Your task to perform on an android device: toggle translation in the chrome app Image 0: 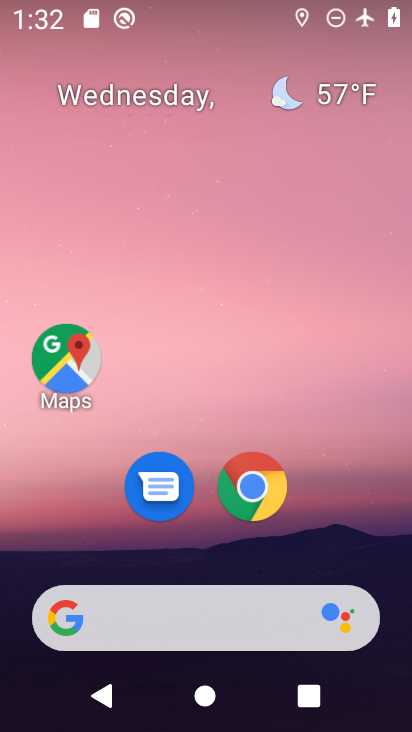
Step 0: drag from (367, 552) to (379, 203)
Your task to perform on an android device: toggle translation in the chrome app Image 1: 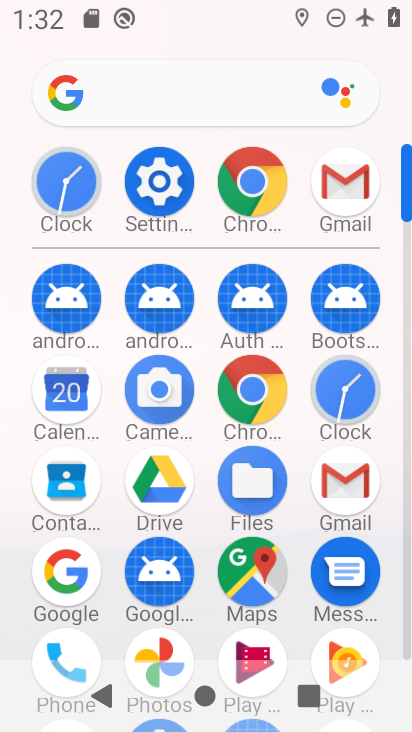
Step 1: click (280, 394)
Your task to perform on an android device: toggle translation in the chrome app Image 2: 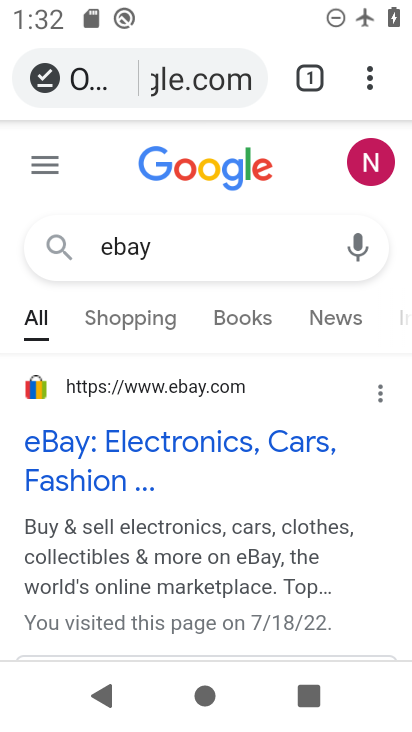
Step 2: click (371, 78)
Your task to perform on an android device: toggle translation in the chrome app Image 3: 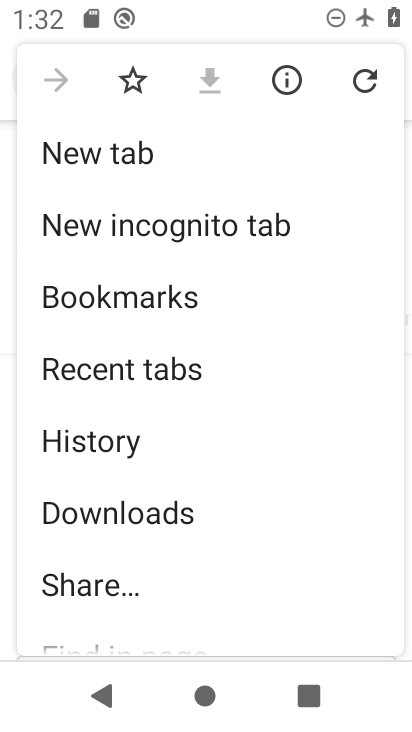
Step 3: drag from (341, 343) to (348, 262)
Your task to perform on an android device: toggle translation in the chrome app Image 4: 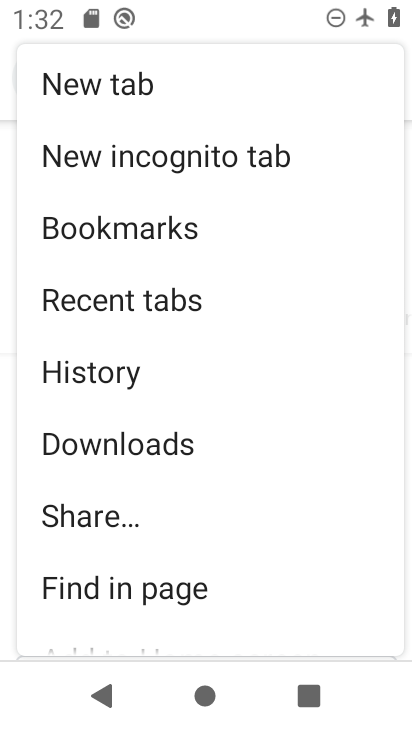
Step 4: drag from (336, 362) to (339, 272)
Your task to perform on an android device: toggle translation in the chrome app Image 5: 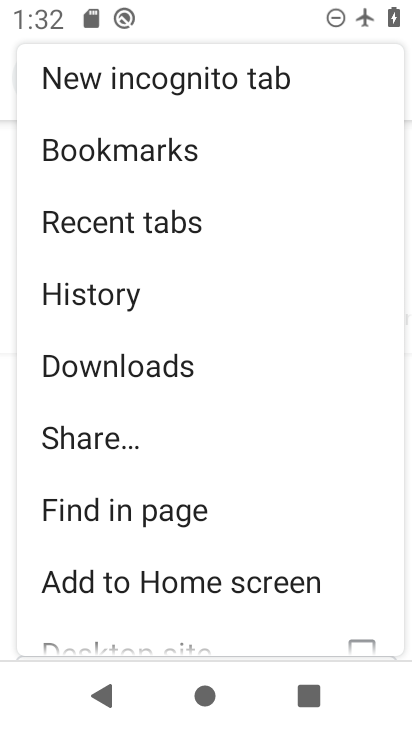
Step 5: drag from (335, 387) to (342, 309)
Your task to perform on an android device: toggle translation in the chrome app Image 6: 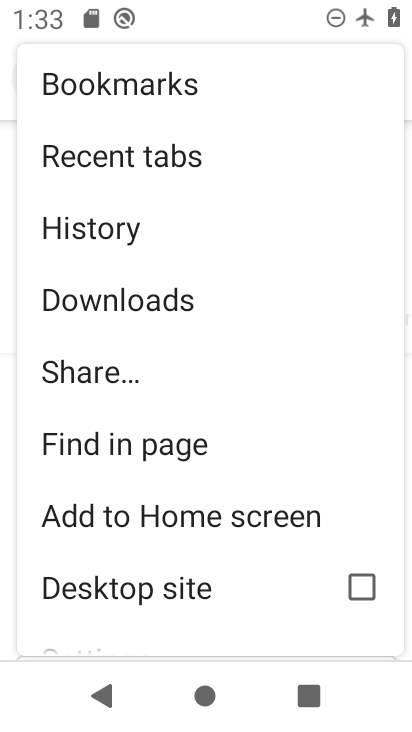
Step 6: drag from (330, 432) to (335, 318)
Your task to perform on an android device: toggle translation in the chrome app Image 7: 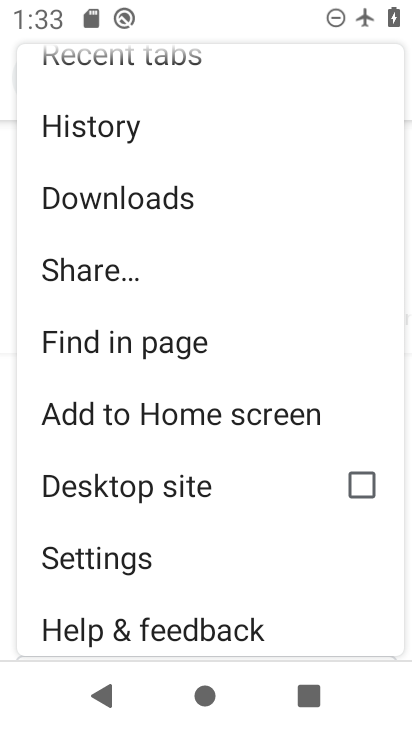
Step 7: drag from (315, 428) to (314, 348)
Your task to perform on an android device: toggle translation in the chrome app Image 8: 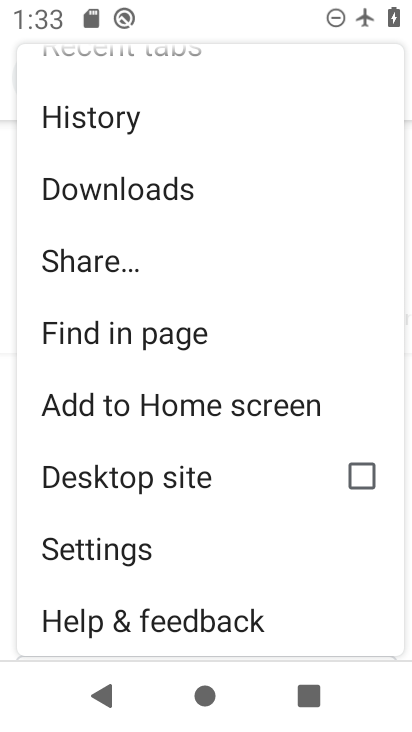
Step 8: click (261, 545)
Your task to perform on an android device: toggle translation in the chrome app Image 9: 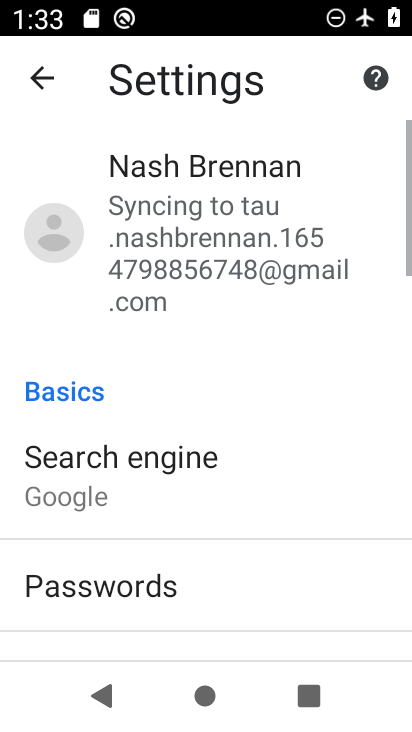
Step 9: drag from (282, 534) to (285, 439)
Your task to perform on an android device: toggle translation in the chrome app Image 10: 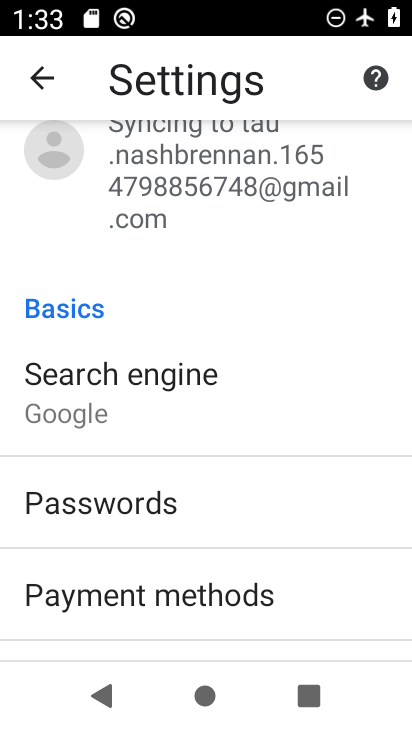
Step 10: drag from (297, 526) to (313, 434)
Your task to perform on an android device: toggle translation in the chrome app Image 11: 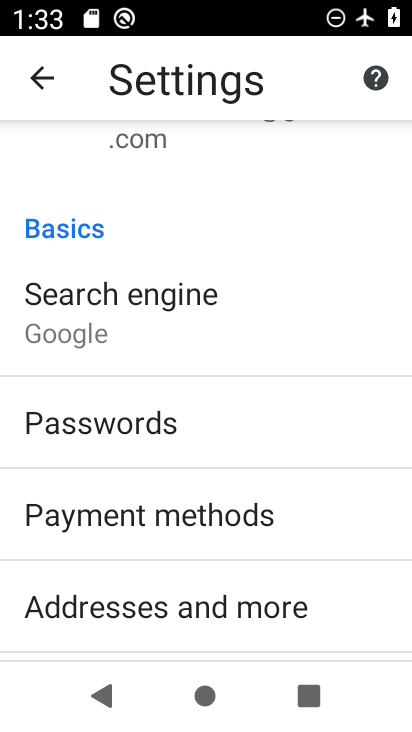
Step 11: drag from (303, 543) to (330, 391)
Your task to perform on an android device: toggle translation in the chrome app Image 12: 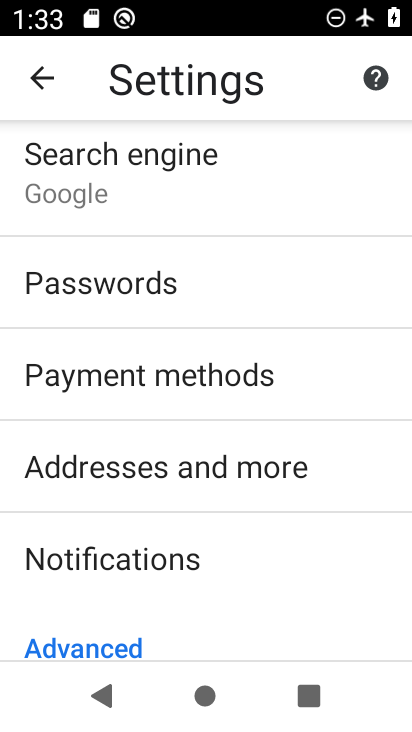
Step 12: drag from (348, 536) to (361, 425)
Your task to perform on an android device: toggle translation in the chrome app Image 13: 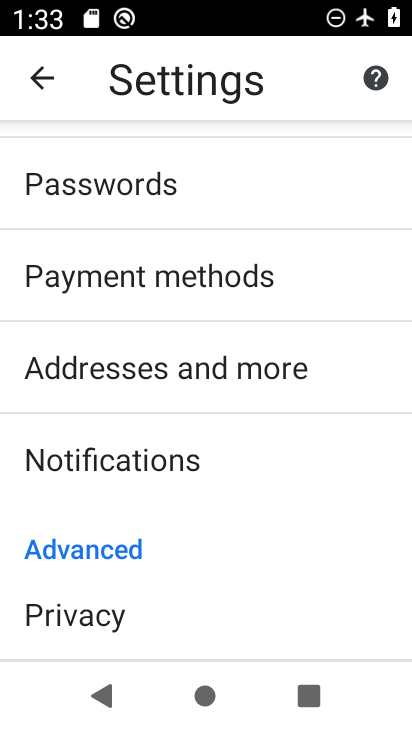
Step 13: drag from (329, 557) to (336, 429)
Your task to perform on an android device: toggle translation in the chrome app Image 14: 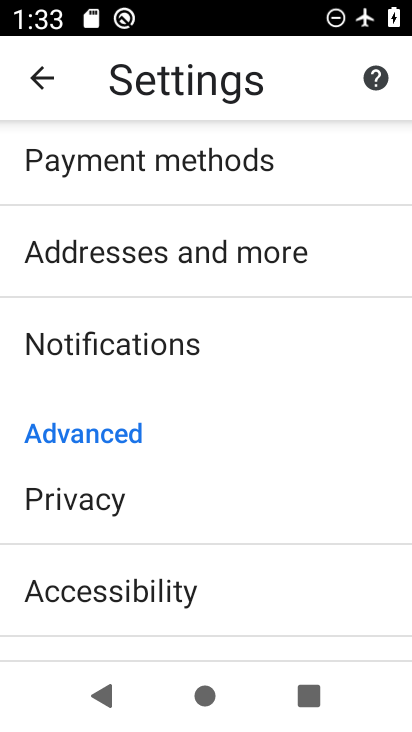
Step 14: drag from (327, 502) to (333, 378)
Your task to perform on an android device: toggle translation in the chrome app Image 15: 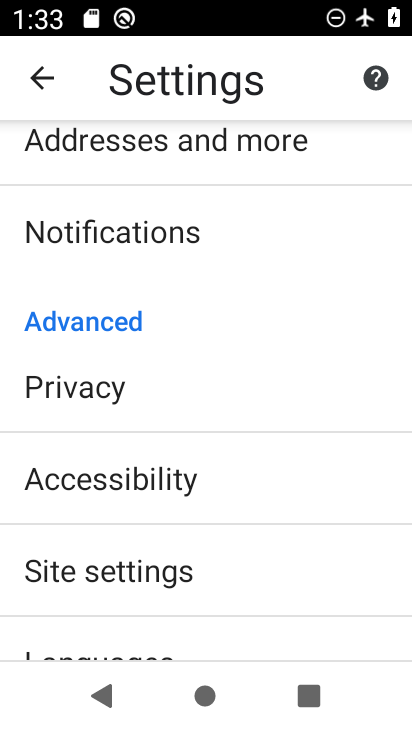
Step 15: drag from (326, 554) to (334, 387)
Your task to perform on an android device: toggle translation in the chrome app Image 16: 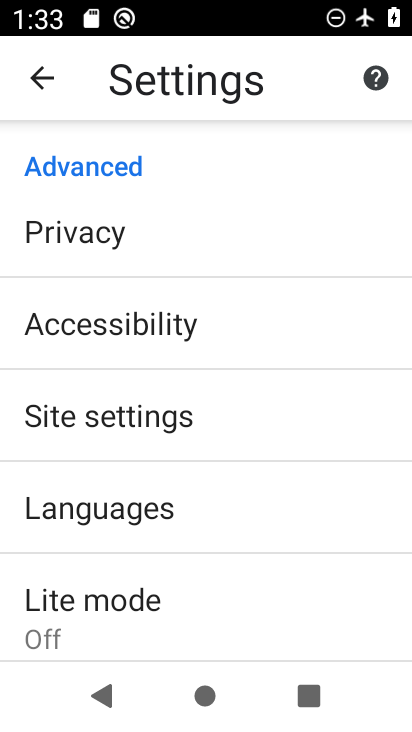
Step 16: click (286, 503)
Your task to perform on an android device: toggle translation in the chrome app Image 17: 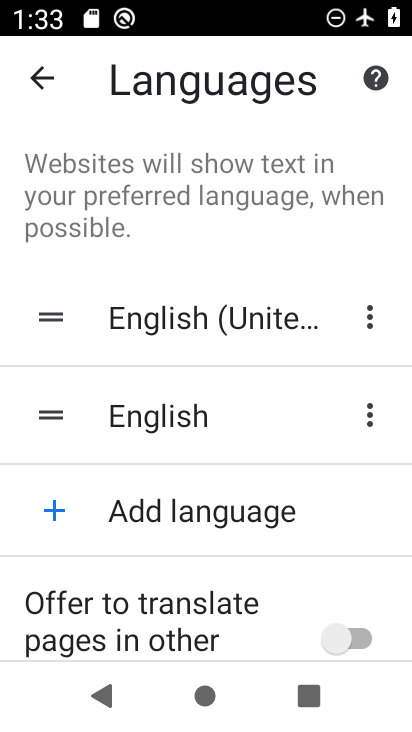
Step 17: click (350, 636)
Your task to perform on an android device: toggle translation in the chrome app Image 18: 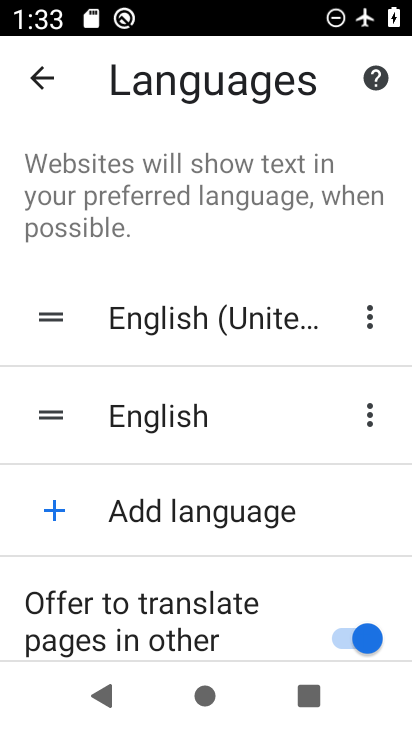
Step 18: task complete